Your task to perform on an android device: Open calendar and show me the fourth week of next month Image 0: 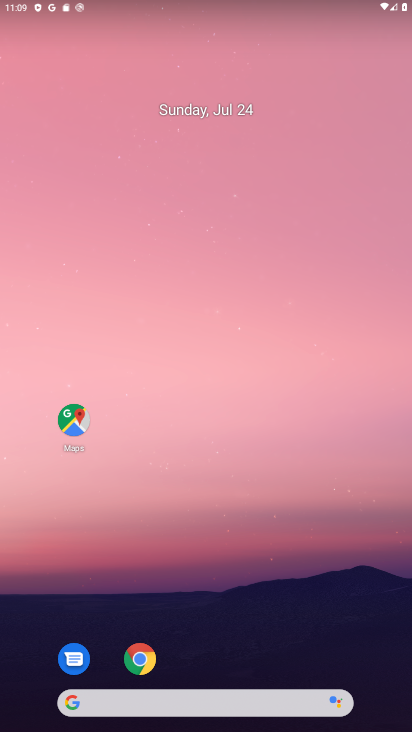
Step 0: drag from (226, 648) to (248, 118)
Your task to perform on an android device: Open calendar and show me the fourth week of next month Image 1: 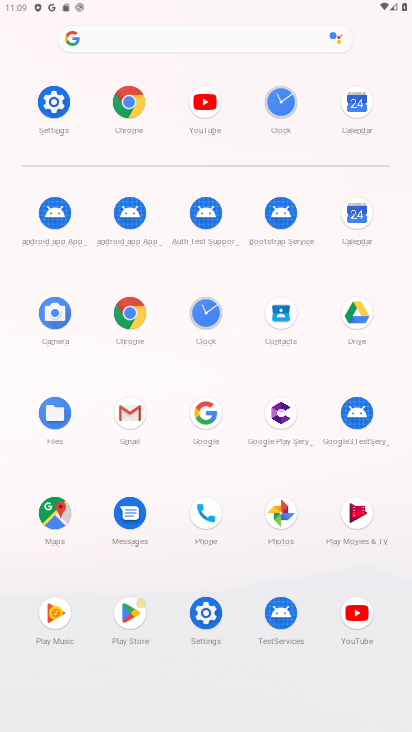
Step 1: click (119, 409)
Your task to perform on an android device: Open calendar and show me the fourth week of next month Image 2: 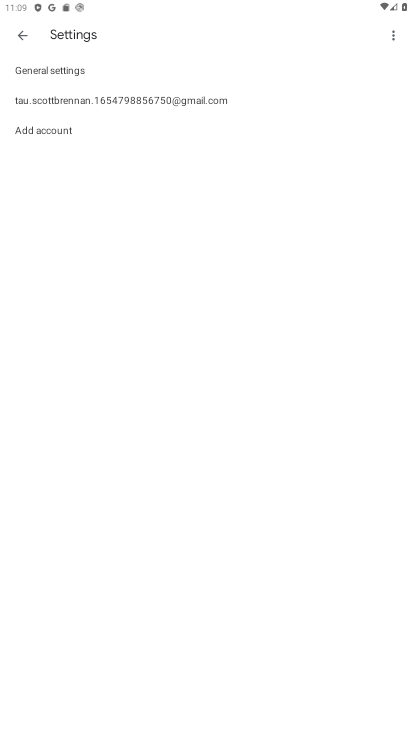
Step 2: click (141, 95)
Your task to perform on an android device: Open calendar and show me the fourth week of next month Image 3: 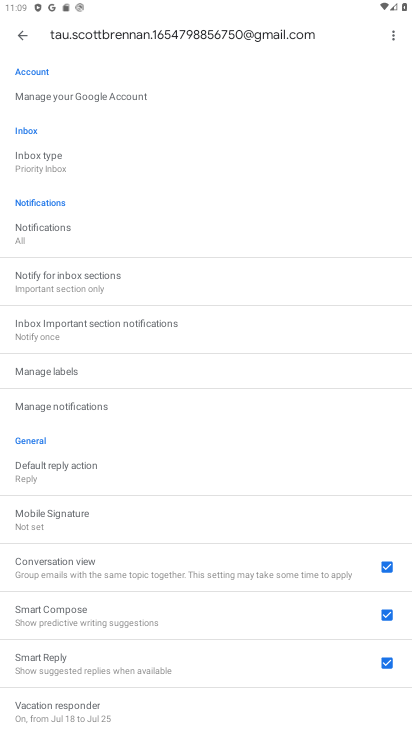
Step 3: click (35, 30)
Your task to perform on an android device: Open calendar and show me the fourth week of next month Image 4: 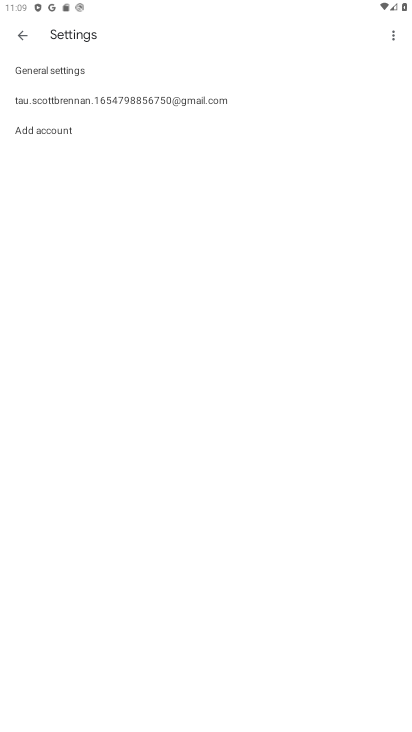
Step 4: click (20, 43)
Your task to perform on an android device: Open calendar and show me the fourth week of next month Image 5: 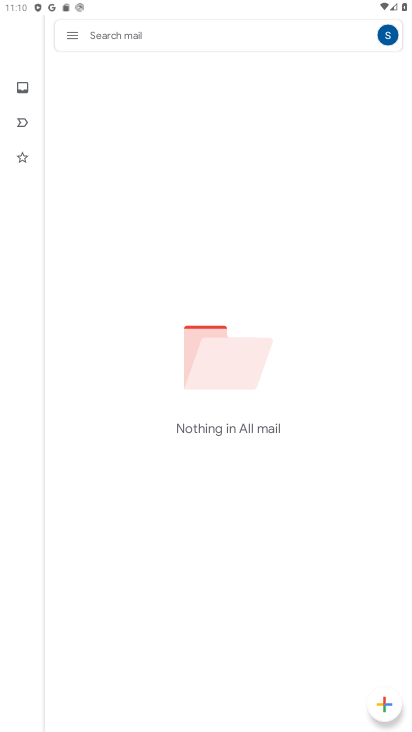
Step 5: drag from (217, 537) to (236, 308)
Your task to perform on an android device: Open calendar and show me the fourth week of next month Image 6: 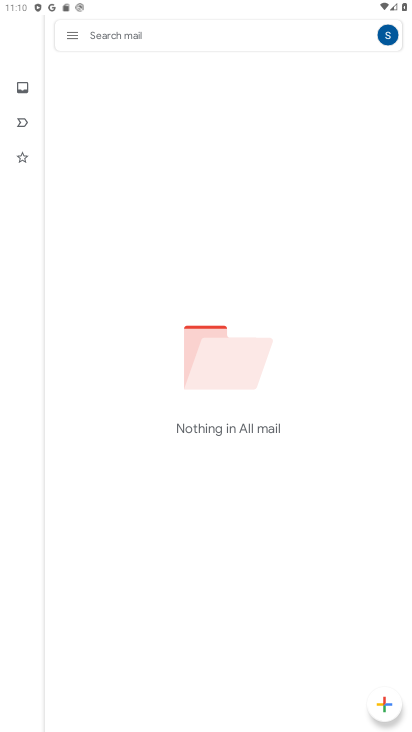
Step 6: click (75, 35)
Your task to perform on an android device: Open calendar and show me the fourth week of next month Image 7: 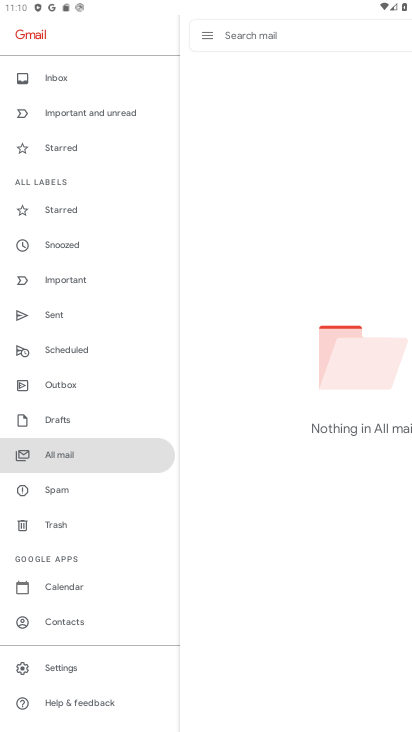
Step 7: click (57, 454)
Your task to perform on an android device: Open calendar and show me the fourth week of next month Image 8: 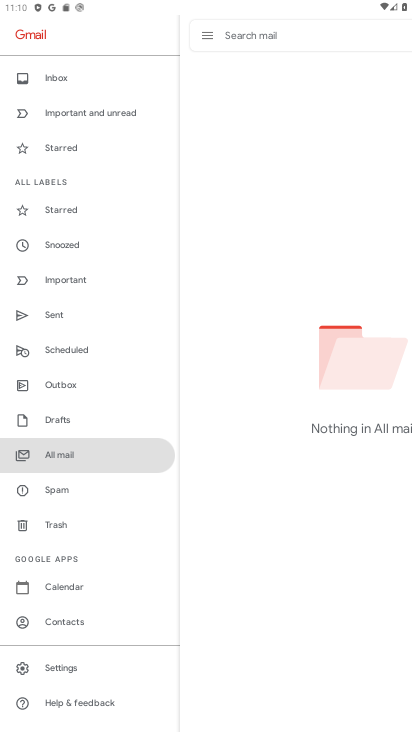
Step 8: task complete